Your task to perform on an android device: What is the recent news? Image 0: 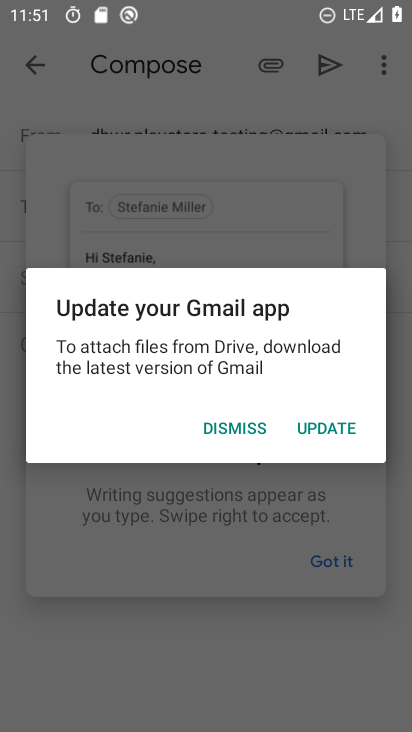
Step 0: press home button
Your task to perform on an android device: What is the recent news? Image 1: 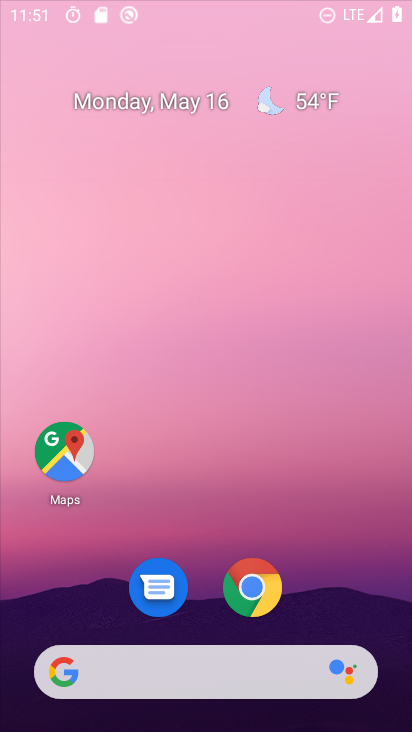
Step 1: drag from (222, 643) to (293, 193)
Your task to perform on an android device: What is the recent news? Image 2: 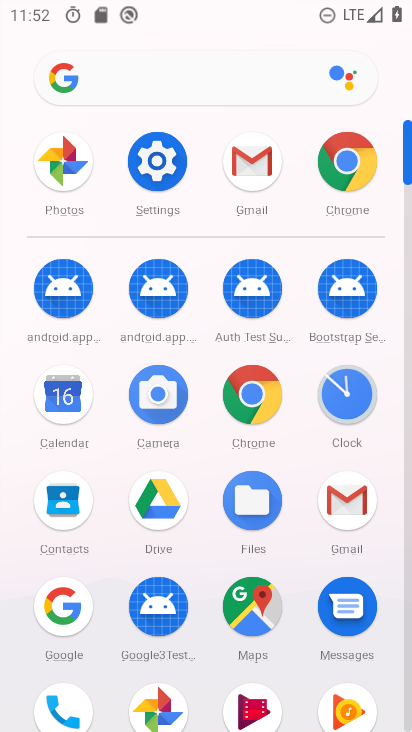
Step 2: click (153, 76)
Your task to perform on an android device: What is the recent news? Image 3: 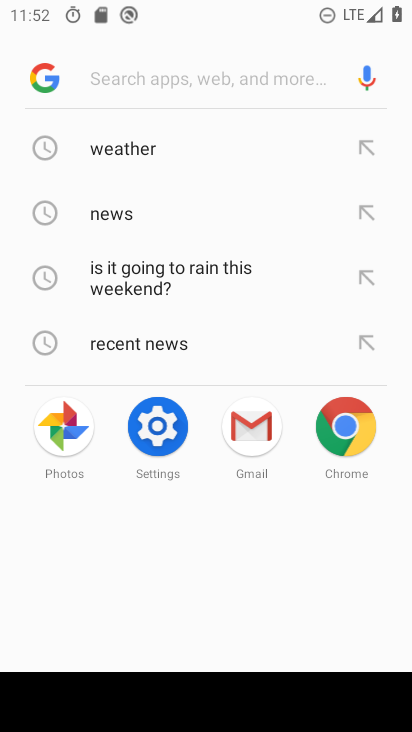
Step 3: click (184, 334)
Your task to perform on an android device: What is the recent news? Image 4: 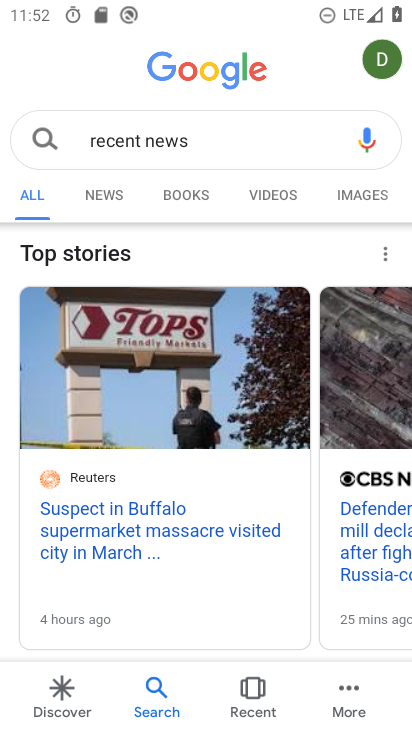
Step 4: drag from (165, 587) to (319, 178)
Your task to perform on an android device: What is the recent news? Image 5: 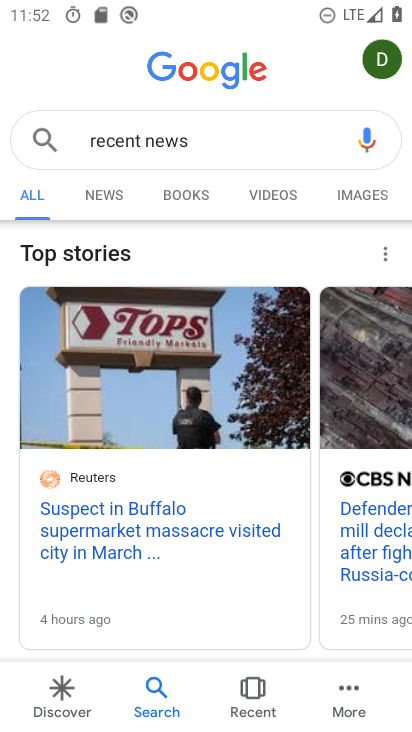
Step 5: drag from (228, 547) to (315, 256)
Your task to perform on an android device: What is the recent news? Image 6: 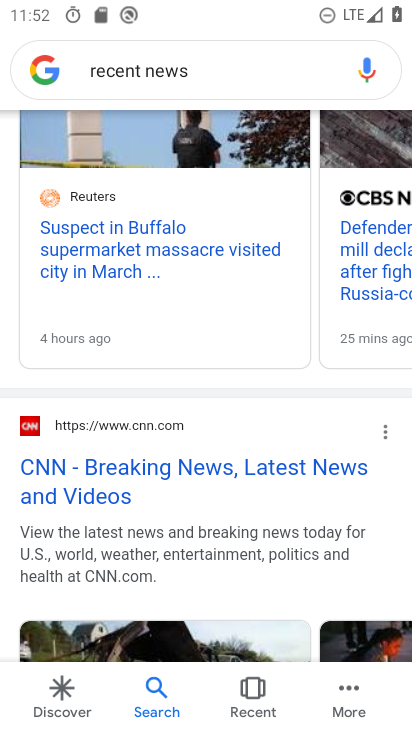
Step 6: drag from (238, 580) to (383, 255)
Your task to perform on an android device: What is the recent news? Image 7: 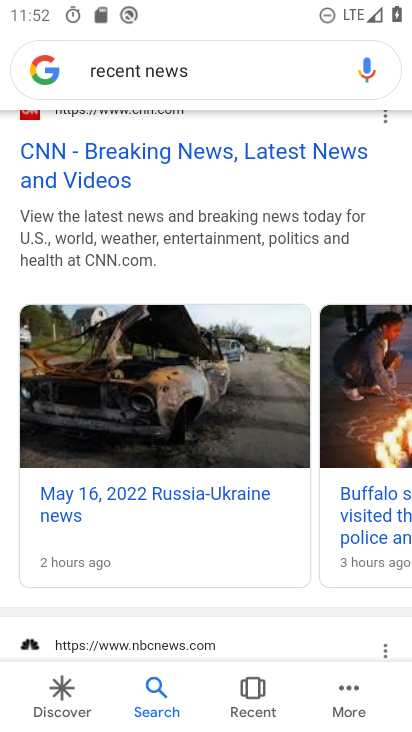
Step 7: drag from (239, 588) to (306, 226)
Your task to perform on an android device: What is the recent news? Image 8: 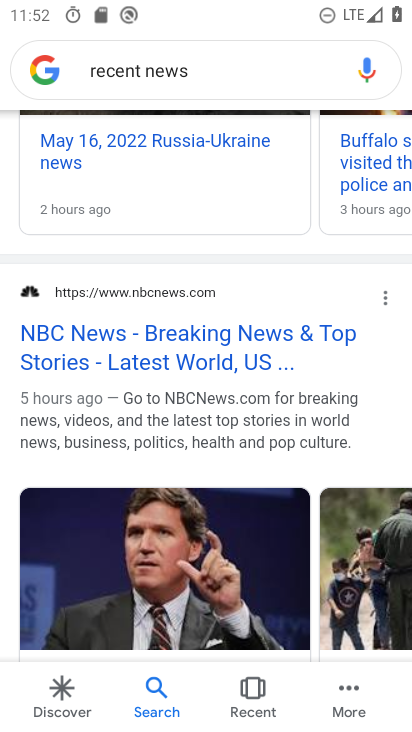
Step 8: click (209, 337)
Your task to perform on an android device: What is the recent news? Image 9: 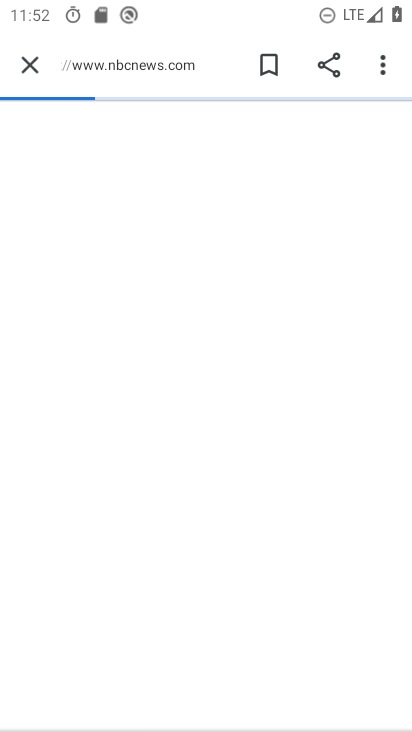
Step 9: task complete